Your task to perform on an android device: Open Youtube and go to the subscriptions tab Image 0: 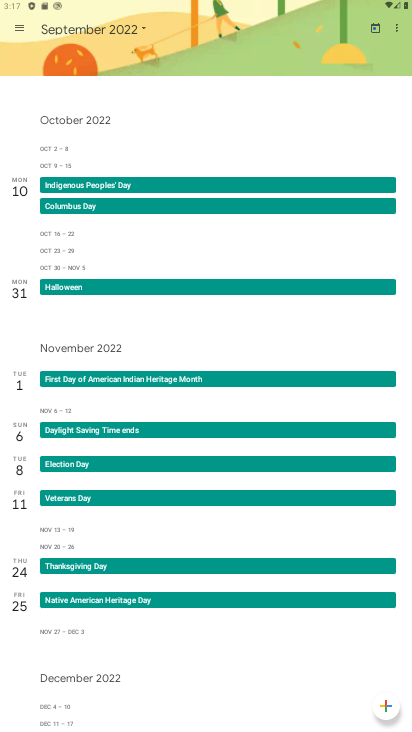
Step 0: press home button
Your task to perform on an android device: Open Youtube and go to the subscriptions tab Image 1: 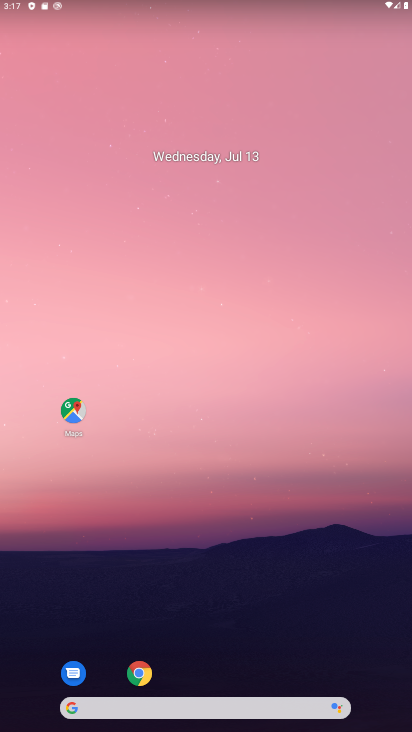
Step 1: drag from (308, 636) to (408, 674)
Your task to perform on an android device: Open Youtube and go to the subscriptions tab Image 2: 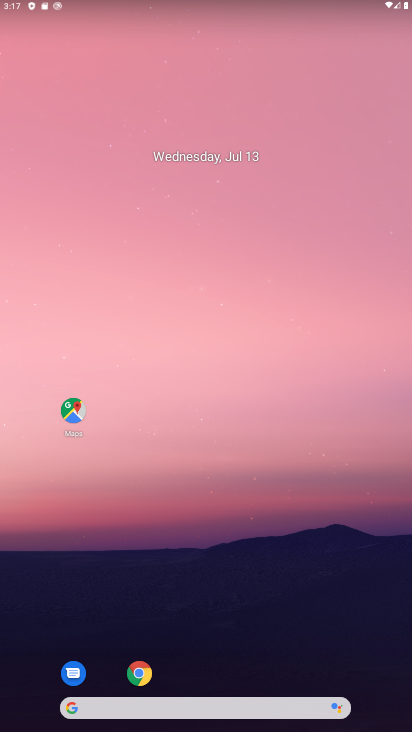
Step 2: drag from (347, 562) to (317, 27)
Your task to perform on an android device: Open Youtube and go to the subscriptions tab Image 3: 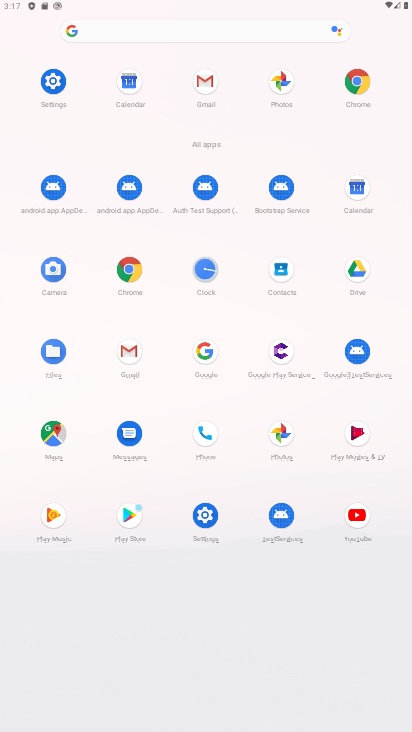
Step 3: click (360, 506)
Your task to perform on an android device: Open Youtube and go to the subscriptions tab Image 4: 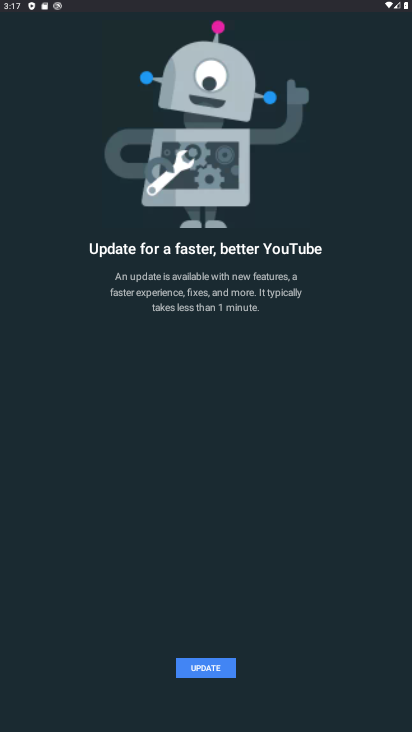
Step 4: click (218, 668)
Your task to perform on an android device: Open Youtube and go to the subscriptions tab Image 5: 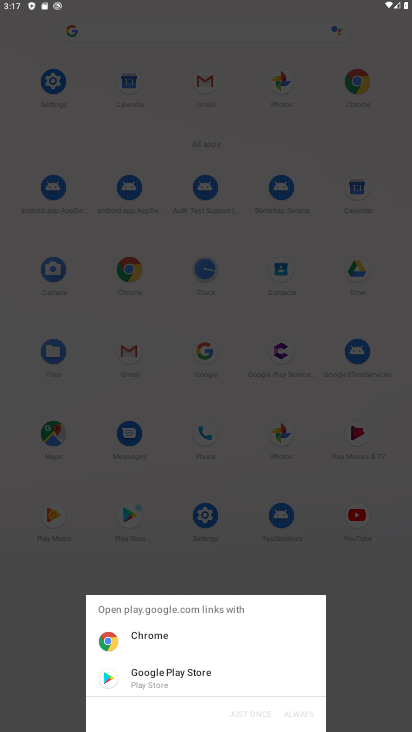
Step 5: click (210, 673)
Your task to perform on an android device: Open Youtube and go to the subscriptions tab Image 6: 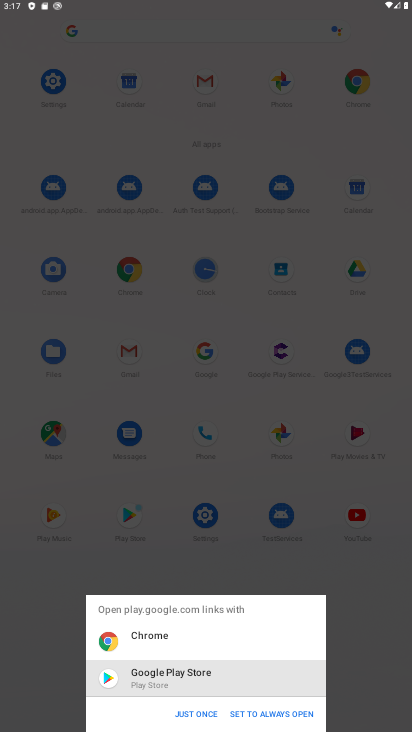
Step 6: click (192, 707)
Your task to perform on an android device: Open Youtube and go to the subscriptions tab Image 7: 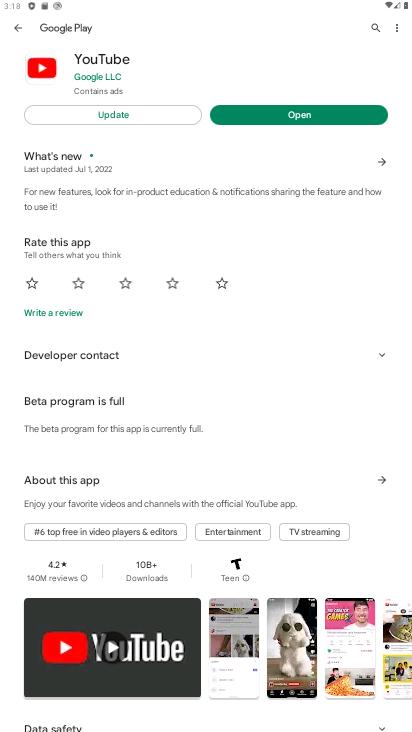
Step 7: click (132, 117)
Your task to perform on an android device: Open Youtube and go to the subscriptions tab Image 8: 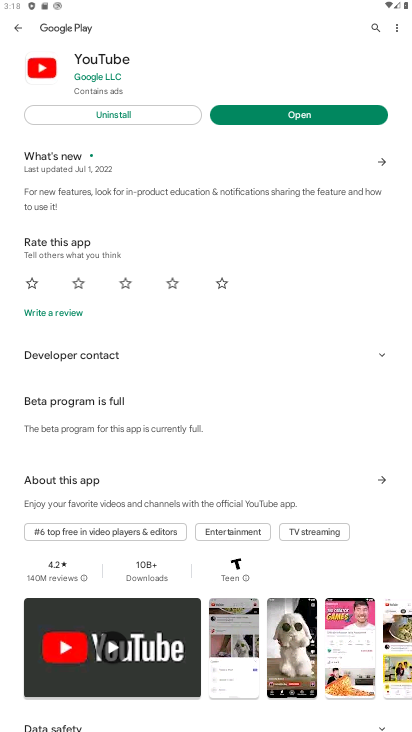
Step 8: click (94, 114)
Your task to perform on an android device: Open Youtube and go to the subscriptions tab Image 9: 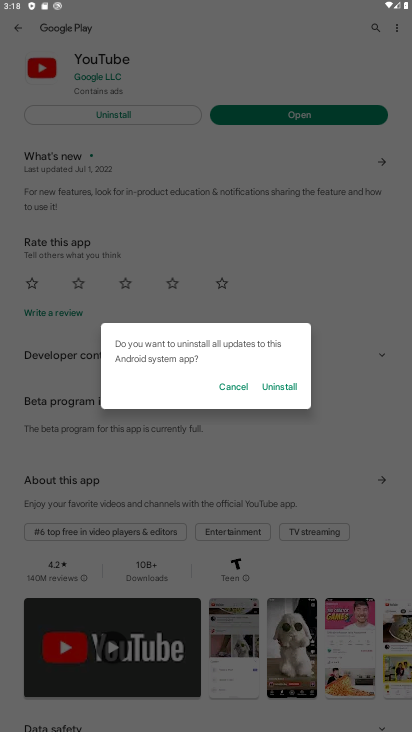
Step 9: click (239, 388)
Your task to perform on an android device: Open Youtube and go to the subscriptions tab Image 10: 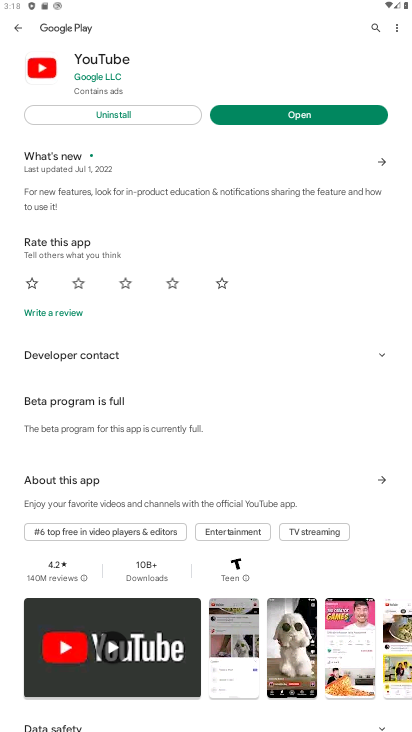
Step 10: click (314, 117)
Your task to perform on an android device: Open Youtube and go to the subscriptions tab Image 11: 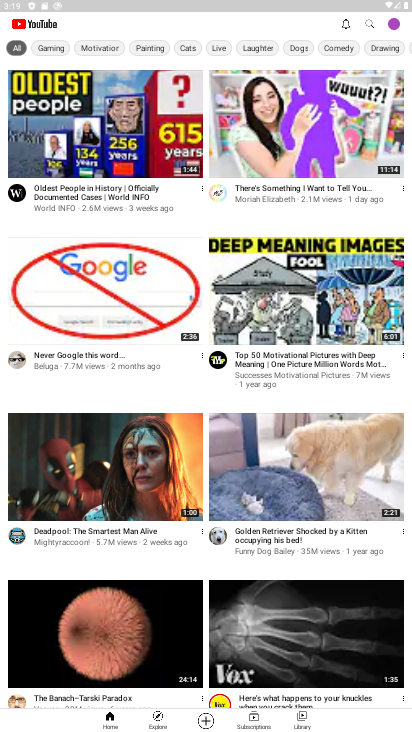
Step 11: click (245, 709)
Your task to perform on an android device: Open Youtube and go to the subscriptions tab Image 12: 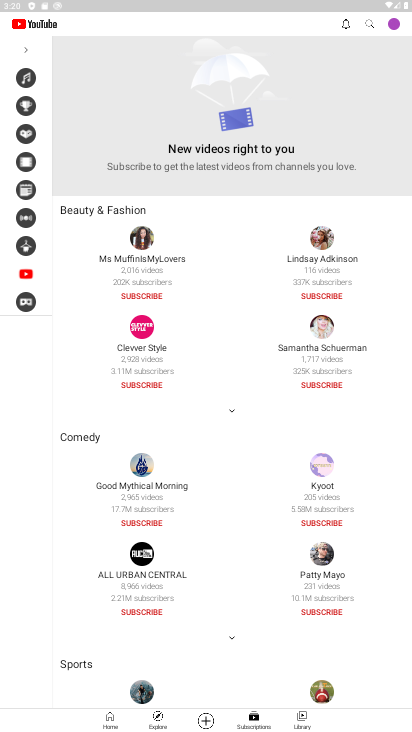
Step 12: task complete